Your task to perform on an android device: Search for pizza restaurants on Maps Image 0: 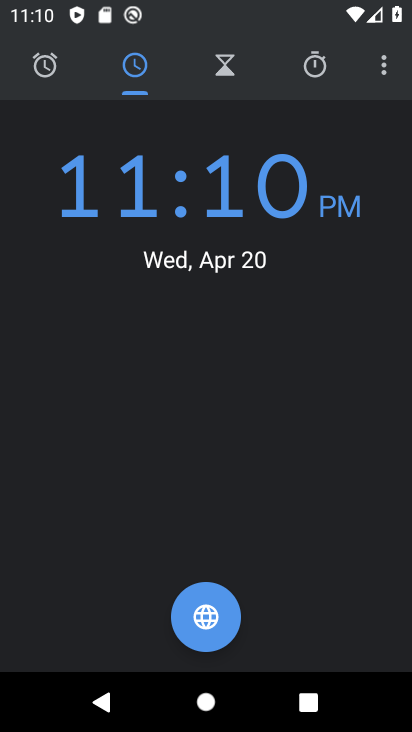
Step 0: press home button
Your task to perform on an android device: Search for pizza restaurants on Maps Image 1: 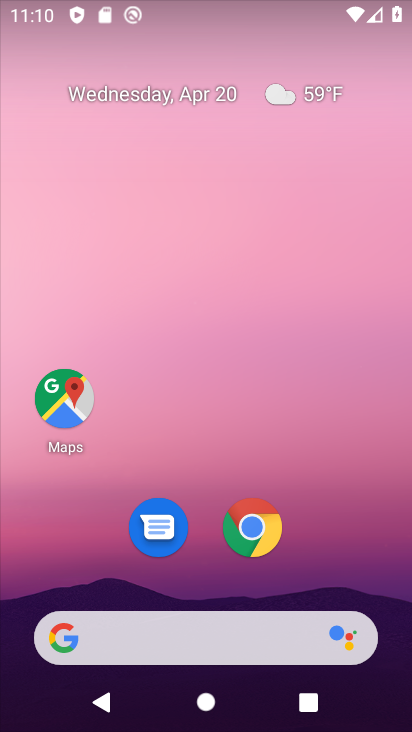
Step 1: drag from (350, 503) to (363, 174)
Your task to perform on an android device: Search for pizza restaurants on Maps Image 2: 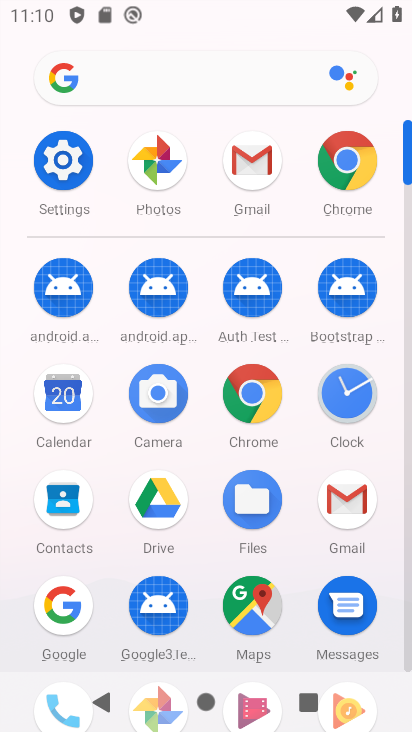
Step 2: click (252, 616)
Your task to perform on an android device: Search for pizza restaurants on Maps Image 3: 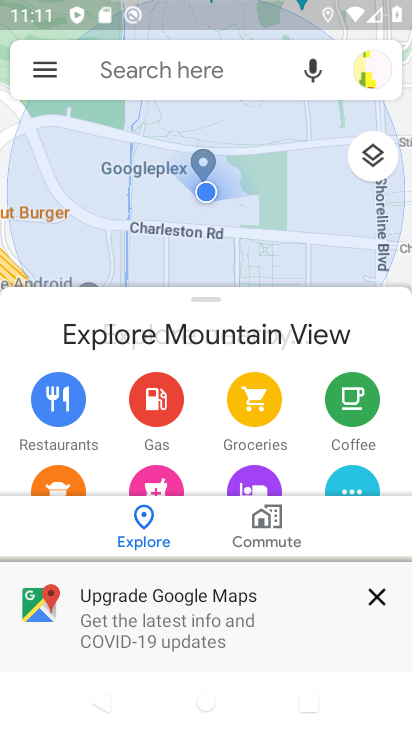
Step 3: click (145, 73)
Your task to perform on an android device: Search for pizza restaurants on Maps Image 4: 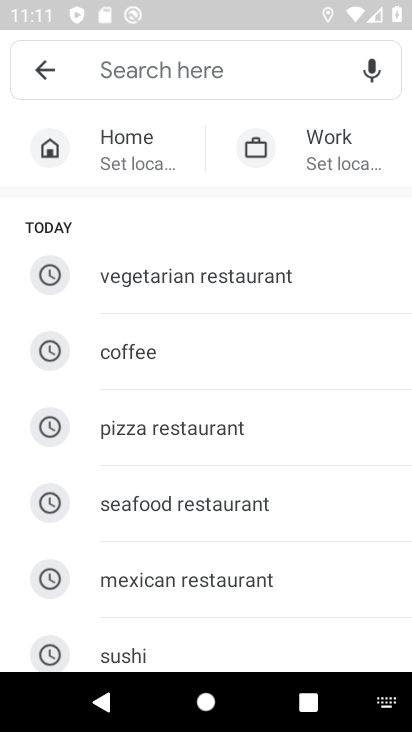
Step 4: click (166, 425)
Your task to perform on an android device: Search for pizza restaurants on Maps Image 5: 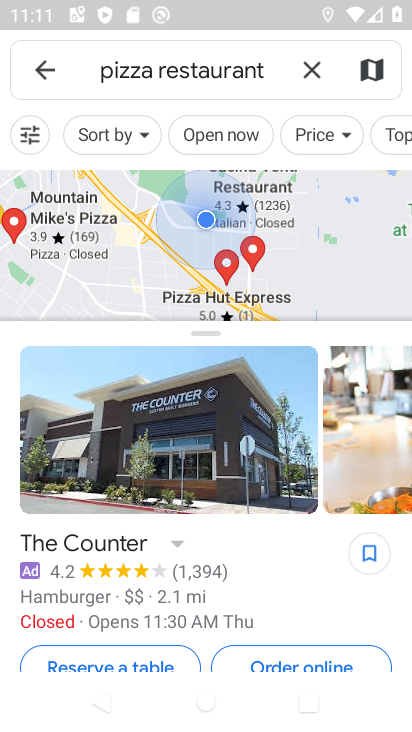
Step 5: task complete